Your task to perform on an android device: turn pop-ups off in chrome Image 0: 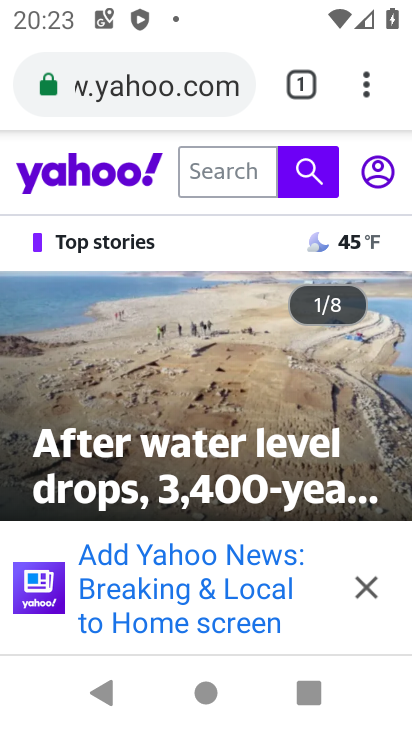
Step 0: press home button
Your task to perform on an android device: turn pop-ups off in chrome Image 1: 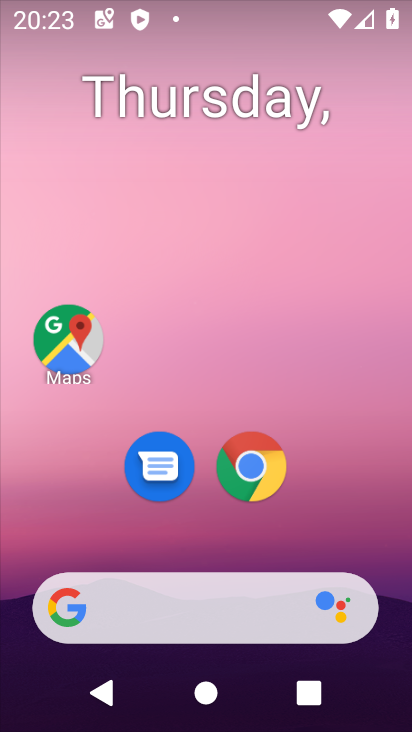
Step 1: click (269, 467)
Your task to perform on an android device: turn pop-ups off in chrome Image 2: 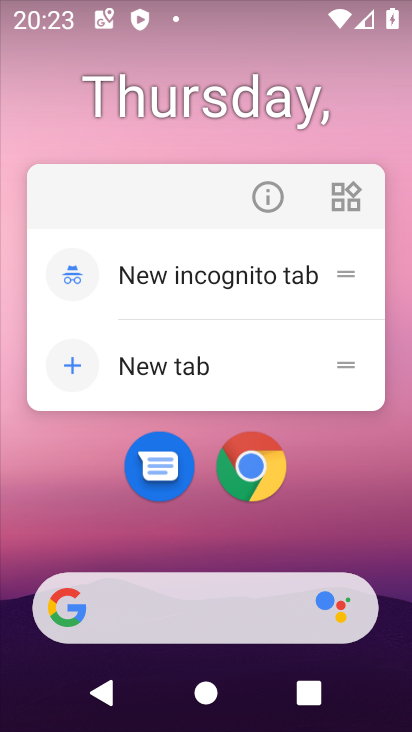
Step 2: click (244, 471)
Your task to perform on an android device: turn pop-ups off in chrome Image 3: 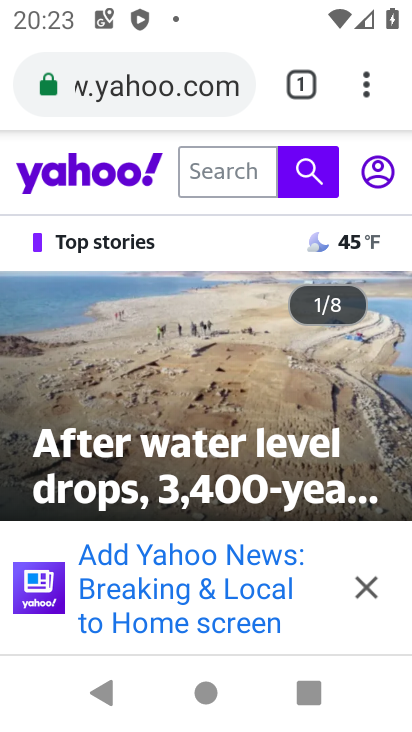
Step 3: drag from (366, 83) to (224, 517)
Your task to perform on an android device: turn pop-ups off in chrome Image 4: 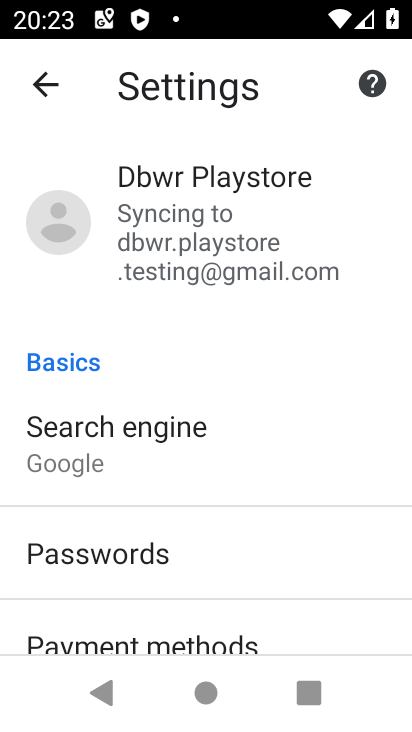
Step 4: drag from (315, 621) to (274, 144)
Your task to perform on an android device: turn pop-ups off in chrome Image 5: 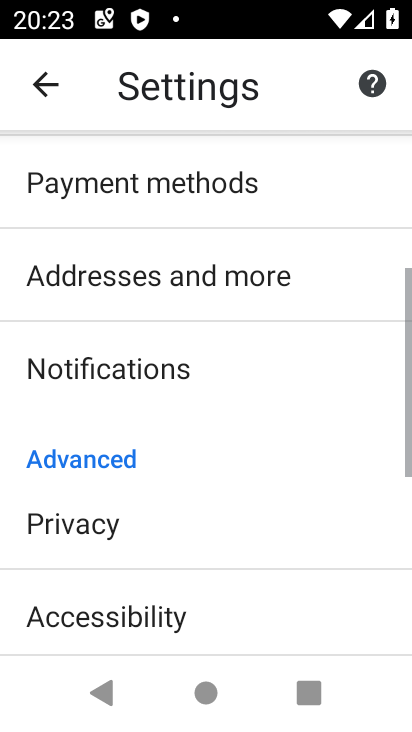
Step 5: drag from (327, 526) to (299, 155)
Your task to perform on an android device: turn pop-ups off in chrome Image 6: 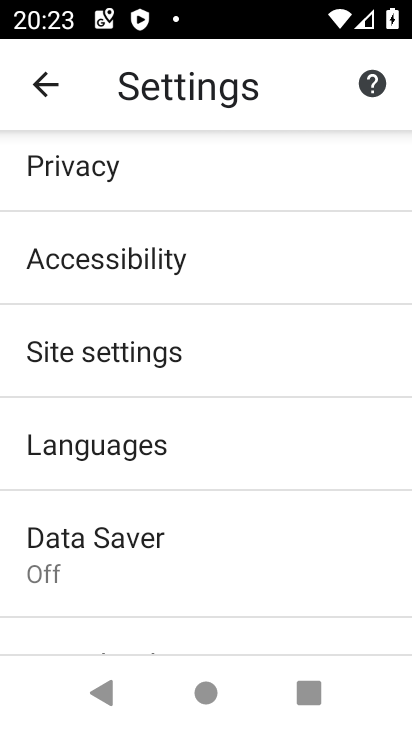
Step 6: click (133, 343)
Your task to perform on an android device: turn pop-ups off in chrome Image 7: 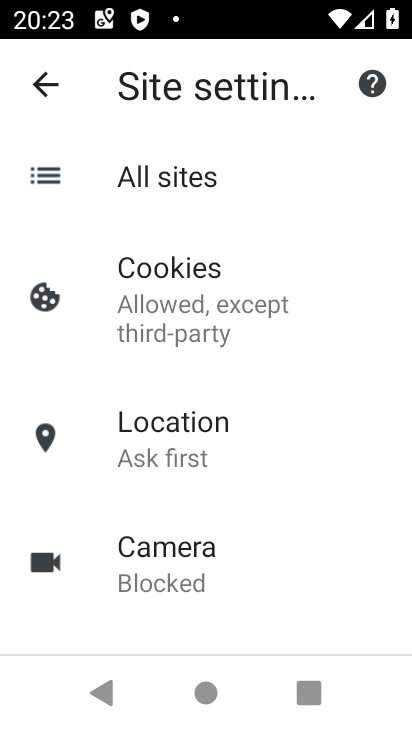
Step 7: drag from (361, 607) to (323, 137)
Your task to perform on an android device: turn pop-ups off in chrome Image 8: 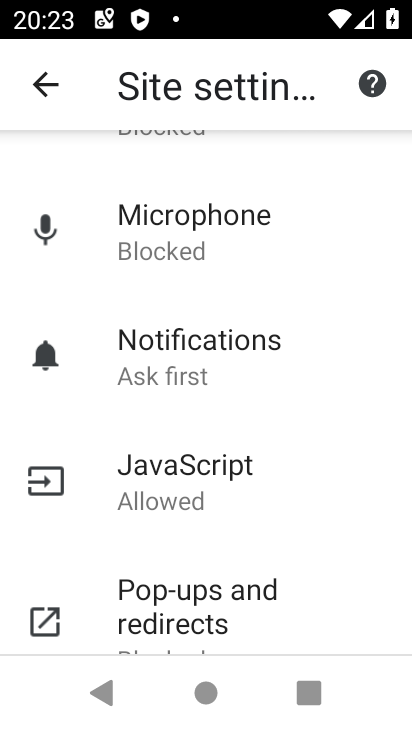
Step 8: click (229, 582)
Your task to perform on an android device: turn pop-ups off in chrome Image 9: 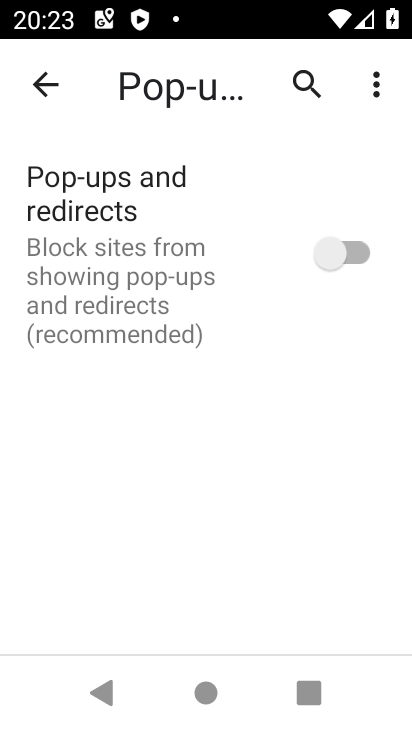
Step 9: task complete